Your task to perform on an android device: Open Yahoo.com Image 0: 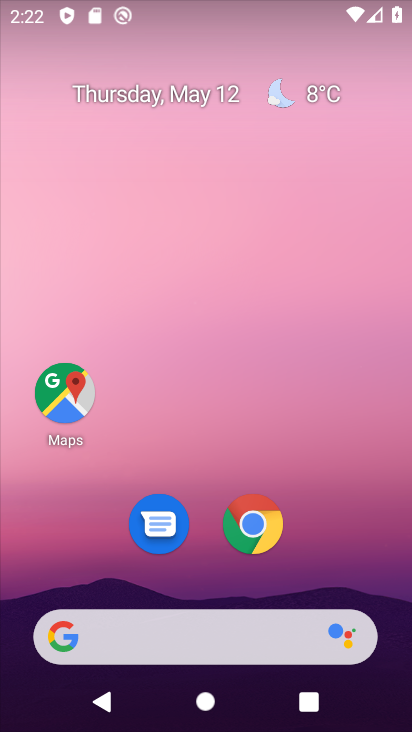
Step 0: click (238, 636)
Your task to perform on an android device: Open Yahoo.com Image 1: 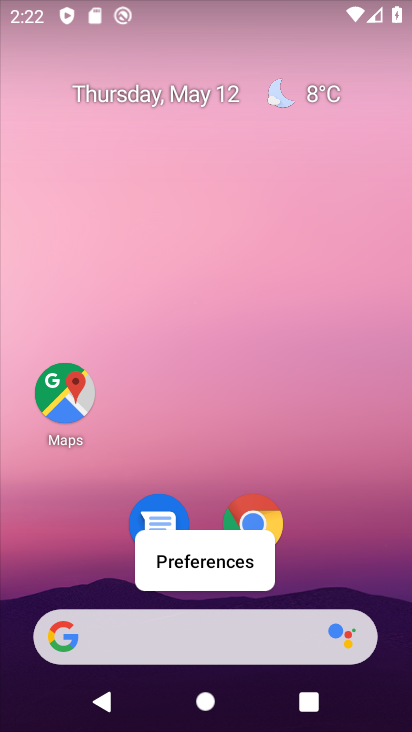
Step 1: click (263, 645)
Your task to perform on an android device: Open Yahoo.com Image 2: 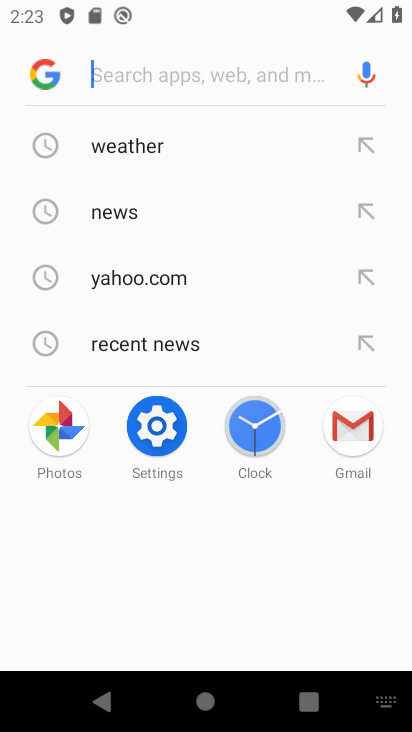
Step 2: click (162, 270)
Your task to perform on an android device: Open Yahoo.com Image 3: 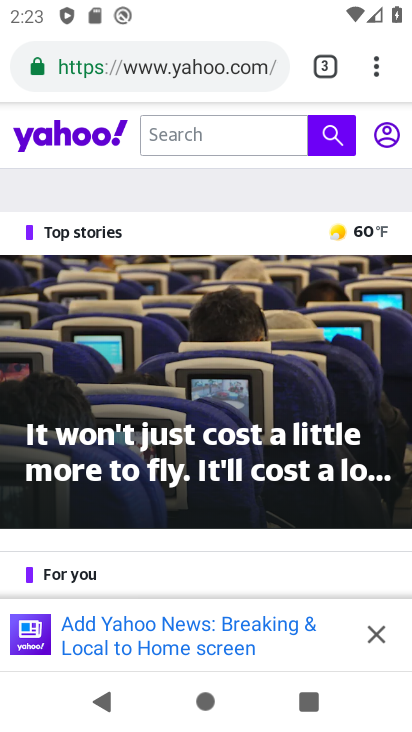
Step 3: task complete